Your task to perform on an android device: uninstall "The Home Depot" Image 0: 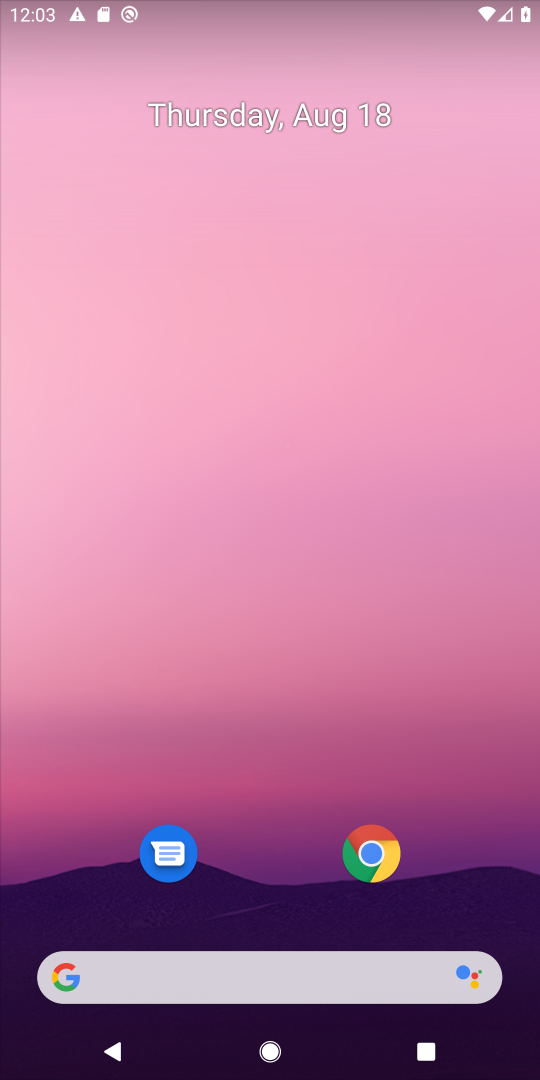
Step 0: drag from (241, 952) to (240, 25)
Your task to perform on an android device: uninstall "The Home Depot" Image 1: 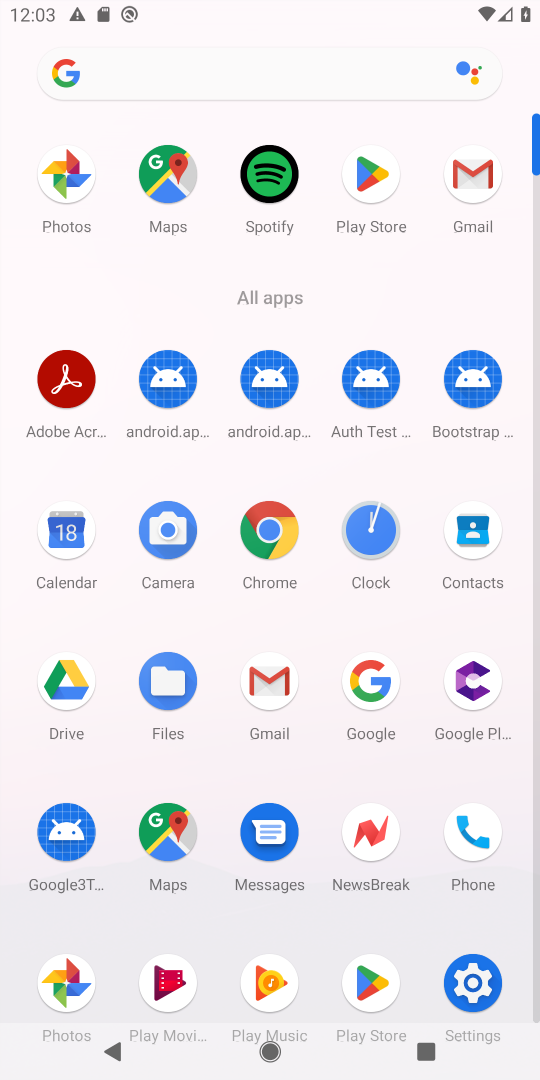
Step 1: task complete